Your task to perform on an android device: Go to eBay Image 0: 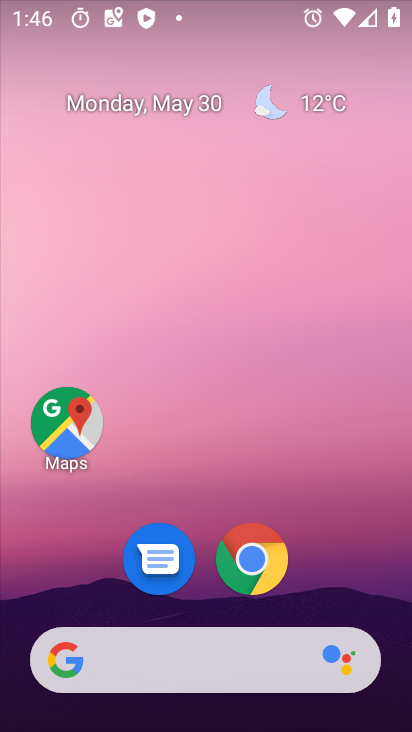
Step 0: click (253, 563)
Your task to perform on an android device: Go to eBay Image 1: 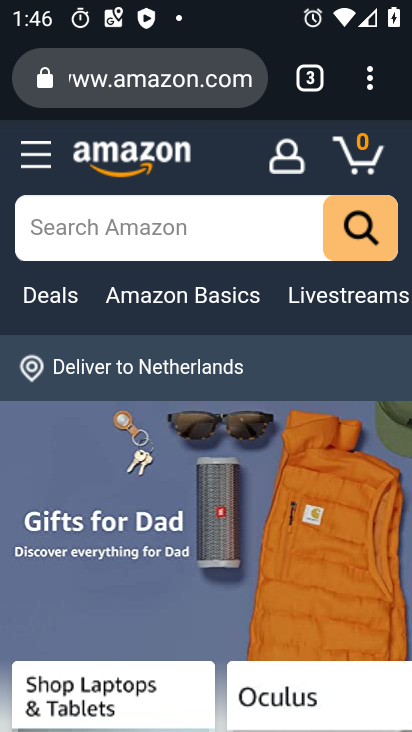
Step 1: click (308, 69)
Your task to perform on an android device: Go to eBay Image 2: 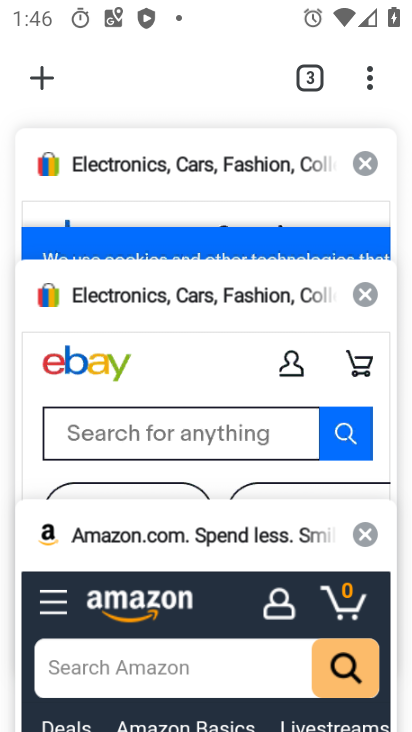
Step 2: click (159, 182)
Your task to perform on an android device: Go to eBay Image 3: 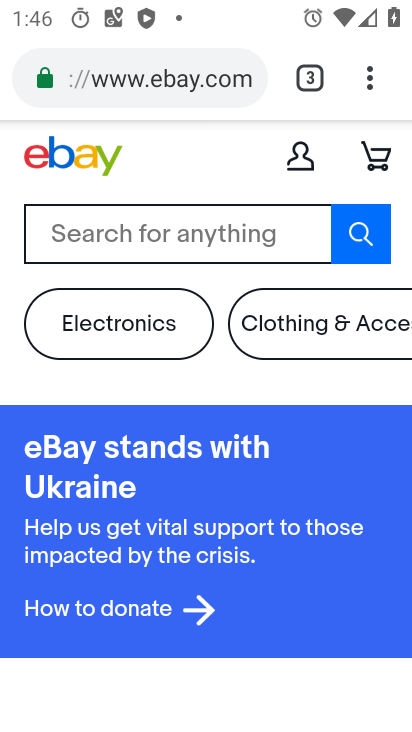
Step 3: task complete